Your task to perform on an android device: What's the weather going to be this weekend? Image 0: 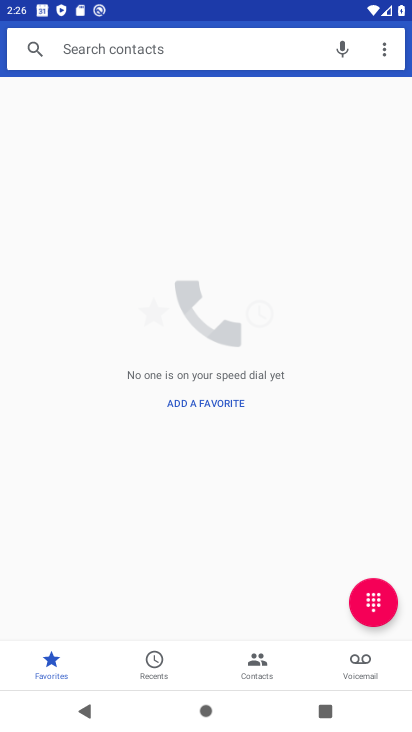
Step 0: press home button
Your task to perform on an android device: What's the weather going to be this weekend? Image 1: 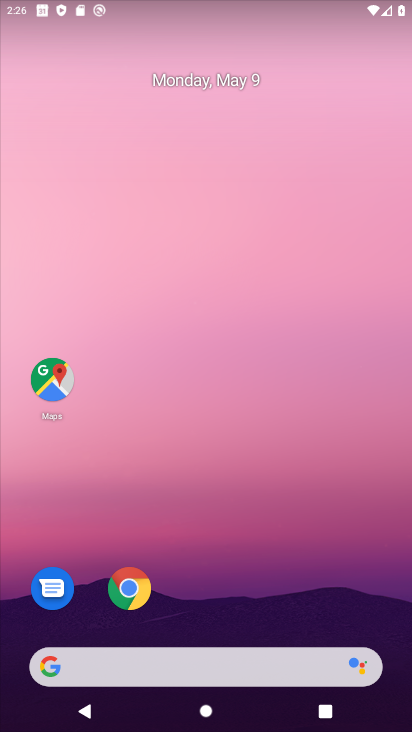
Step 1: click (240, 658)
Your task to perform on an android device: What's the weather going to be this weekend? Image 2: 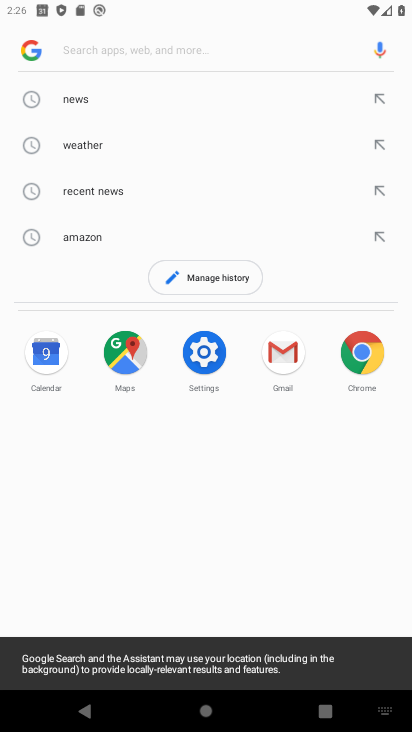
Step 2: click (379, 138)
Your task to perform on an android device: What's the weather going to be this weekend? Image 3: 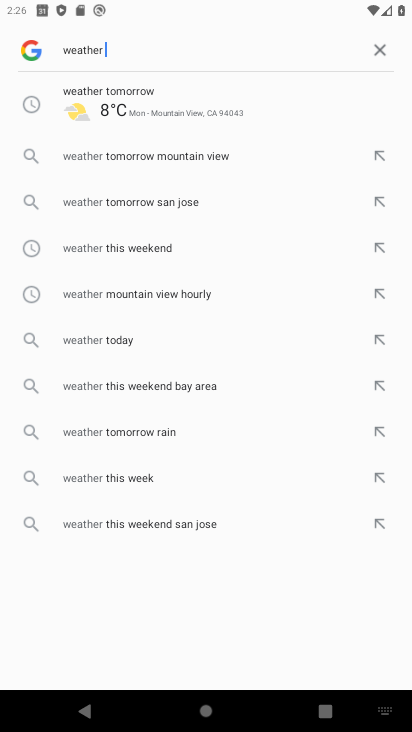
Step 3: type "weekened"
Your task to perform on an android device: What's the weather going to be this weekend? Image 4: 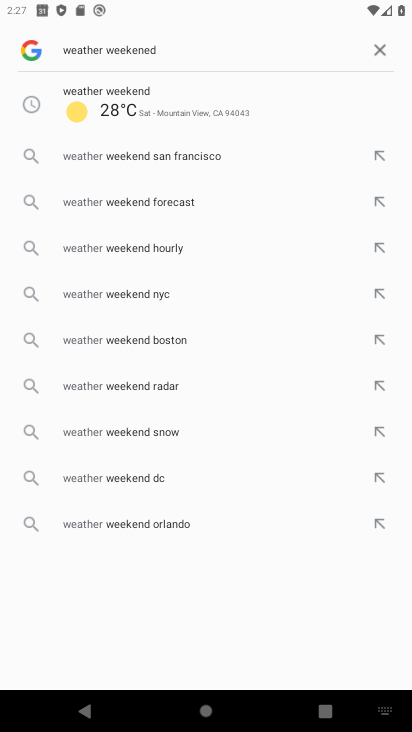
Step 4: click (239, 98)
Your task to perform on an android device: What's the weather going to be this weekend? Image 5: 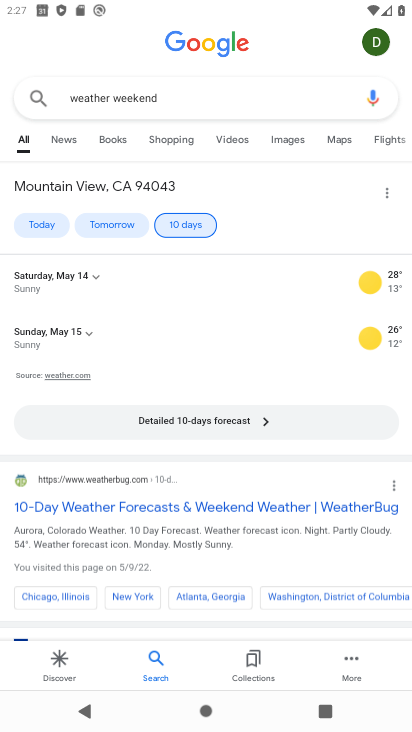
Step 5: task complete